Your task to perform on an android device: find photos in the google photos app Image 0: 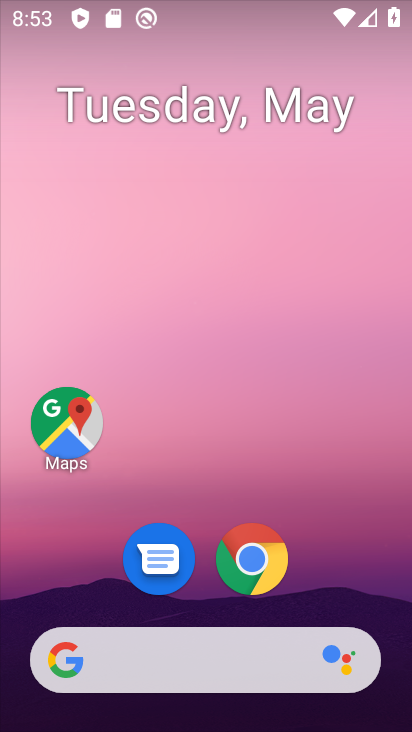
Step 0: drag from (334, 550) to (278, 108)
Your task to perform on an android device: find photos in the google photos app Image 1: 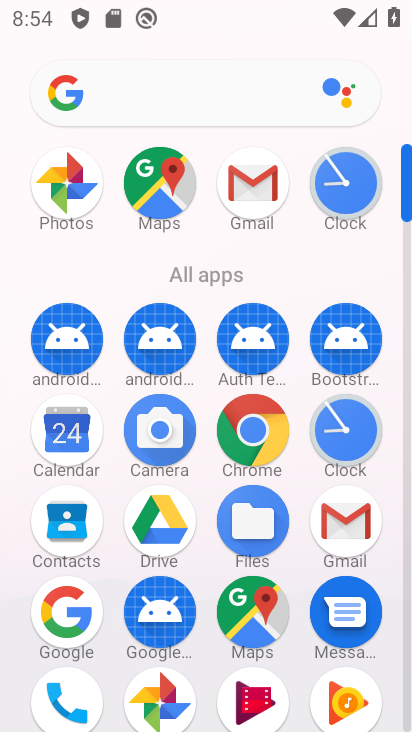
Step 1: click (86, 194)
Your task to perform on an android device: find photos in the google photos app Image 2: 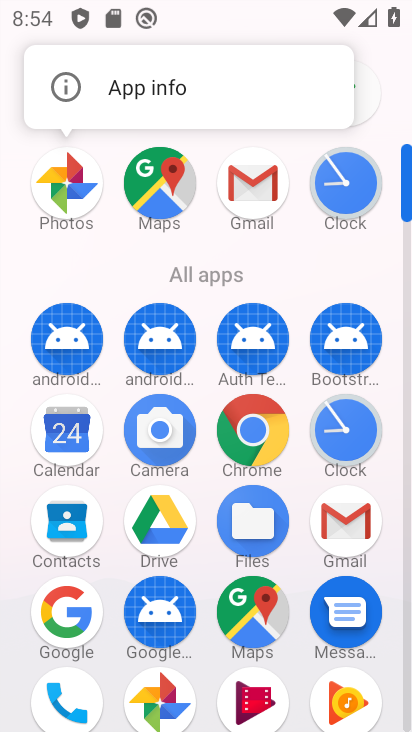
Step 2: click (75, 191)
Your task to perform on an android device: find photos in the google photos app Image 3: 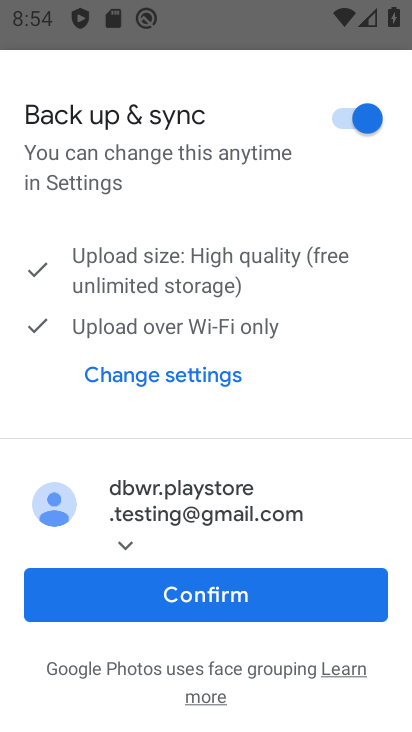
Step 3: click (258, 602)
Your task to perform on an android device: find photos in the google photos app Image 4: 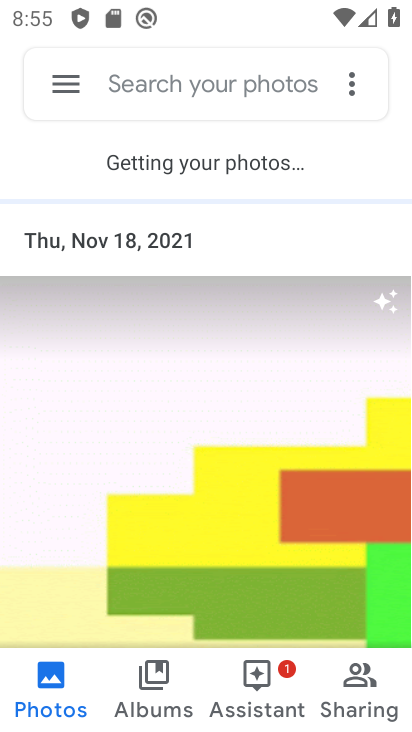
Step 4: task complete